Your task to perform on an android device: check data usage Image 0: 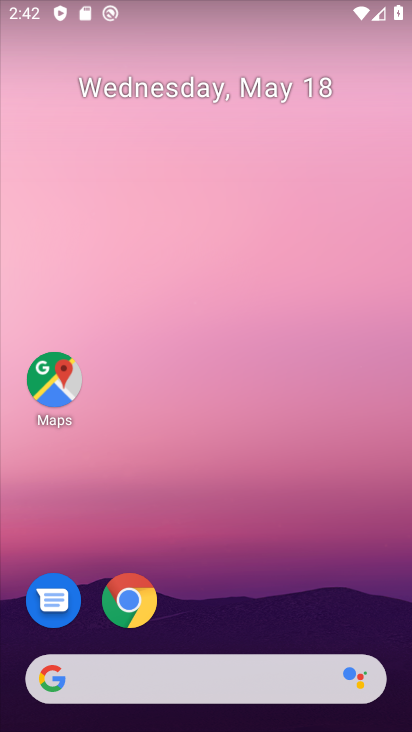
Step 0: drag from (256, 619) to (261, 264)
Your task to perform on an android device: check data usage Image 1: 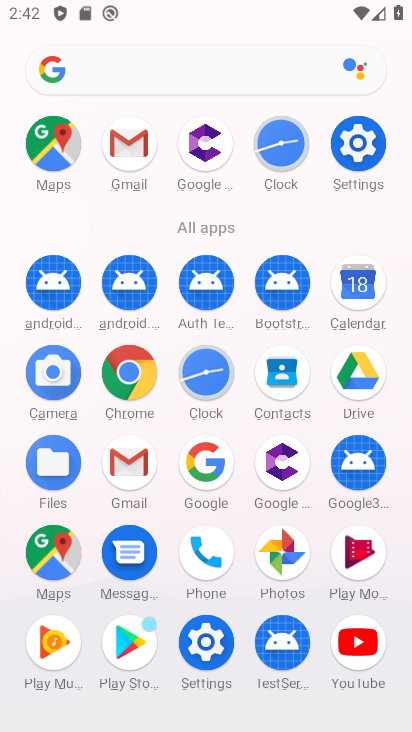
Step 1: click (207, 654)
Your task to perform on an android device: check data usage Image 2: 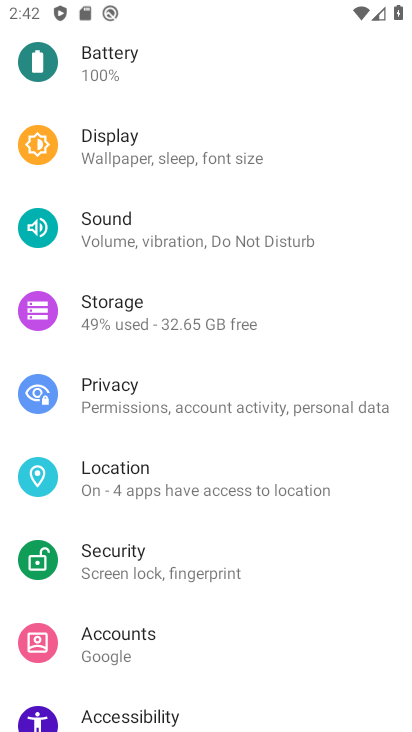
Step 2: drag from (144, 170) to (227, 577)
Your task to perform on an android device: check data usage Image 3: 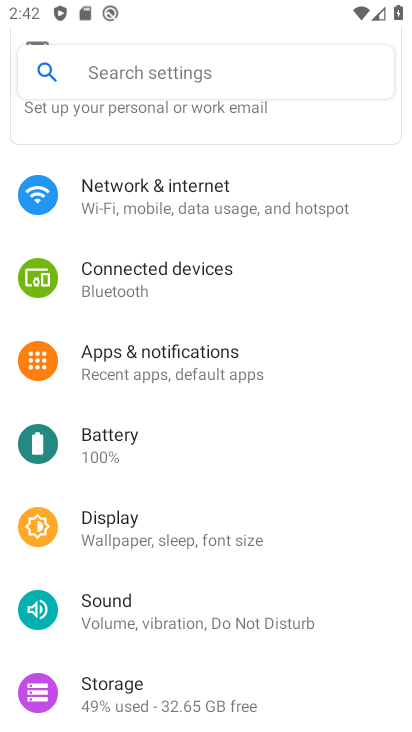
Step 3: click (182, 208)
Your task to perform on an android device: check data usage Image 4: 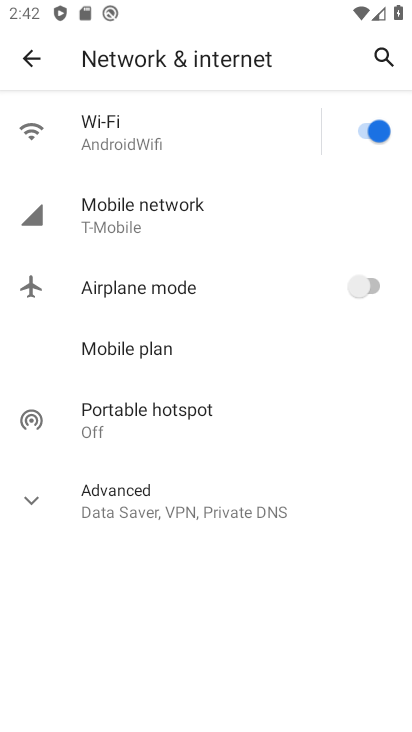
Step 4: click (179, 209)
Your task to perform on an android device: check data usage Image 5: 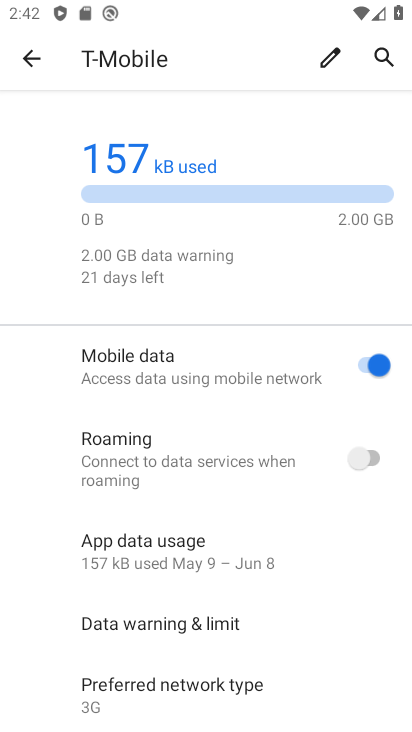
Step 5: task complete